Your task to perform on an android device: Open the calendar and show me this week's events? Image 0: 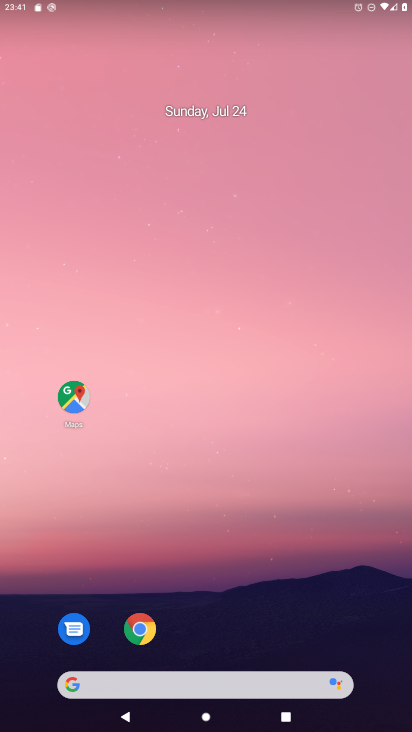
Step 0: drag from (215, 633) to (212, 266)
Your task to perform on an android device: Open the calendar and show me this week's events? Image 1: 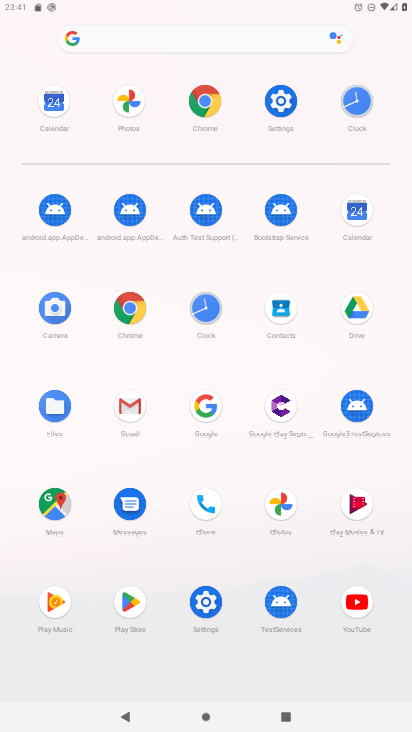
Step 1: drag from (175, 633) to (232, 235)
Your task to perform on an android device: Open the calendar and show me this week's events? Image 2: 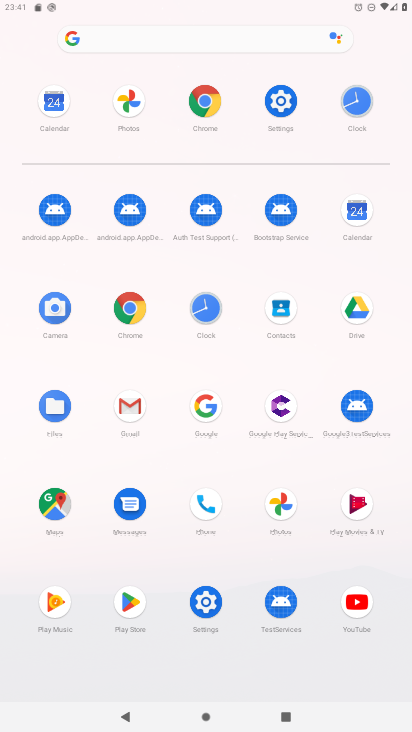
Step 2: click (272, 489)
Your task to perform on an android device: Open the calendar and show me this week's events? Image 3: 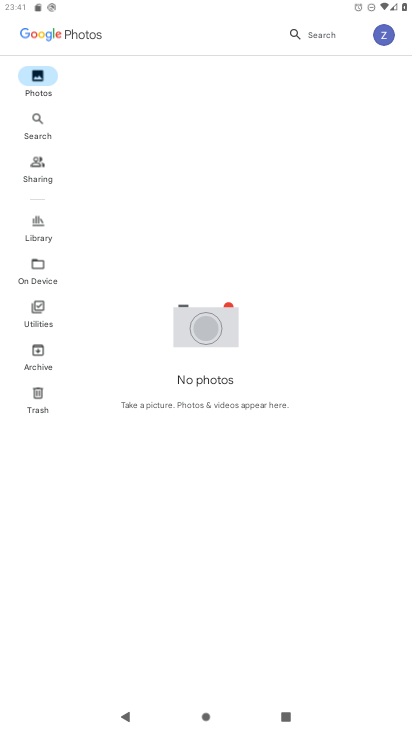
Step 3: click (139, 330)
Your task to perform on an android device: Open the calendar and show me this week's events? Image 4: 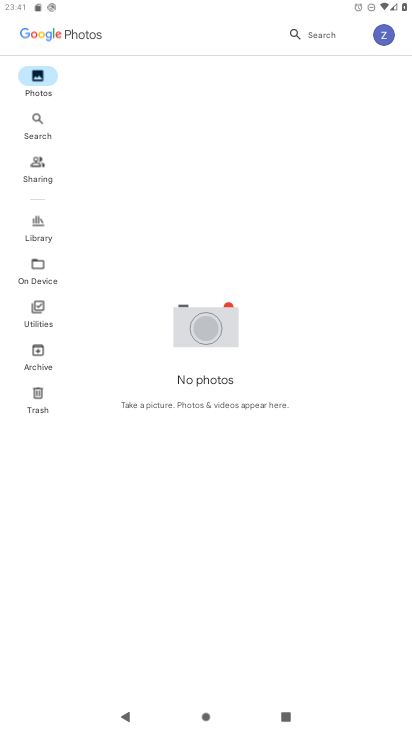
Step 4: drag from (196, 486) to (178, 422)
Your task to perform on an android device: Open the calendar and show me this week's events? Image 5: 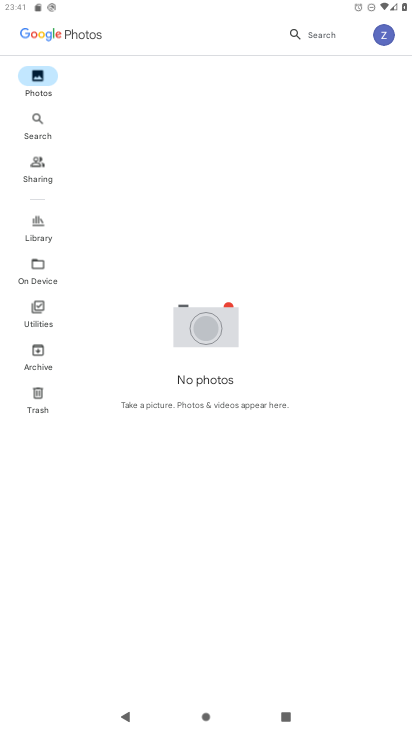
Step 5: drag from (164, 608) to (177, 363)
Your task to perform on an android device: Open the calendar and show me this week's events? Image 6: 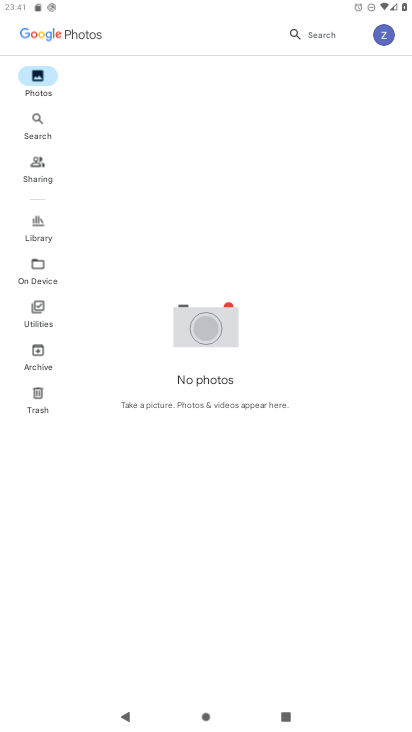
Step 6: drag from (169, 154) to (241, 531)
Your task to perform on an android device: Open the calendar and show me this week's events? Image 7: 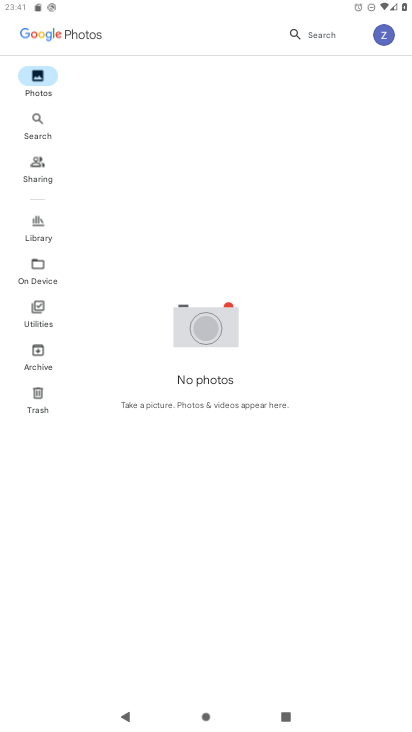
Step 7: drag from (192, 441) to (208, 300)
Your task to perform on an android device: Open the calendar and show me this week's events? Image 8: 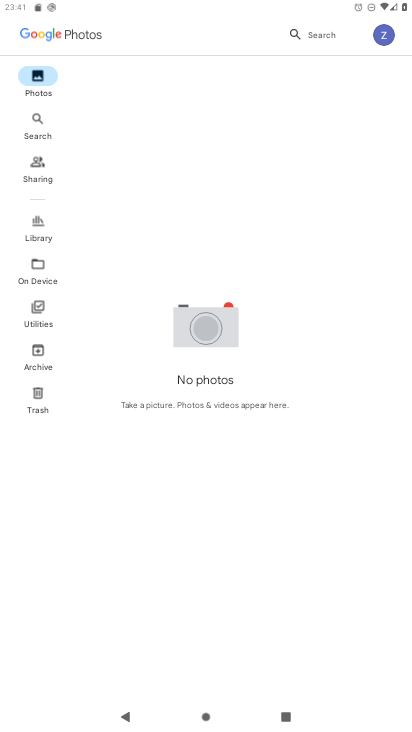
Step 8: drag from (131, 89) to (141, 626)
Your task to perform on an android device: Open the calendar and show me this week's events? Image 9: 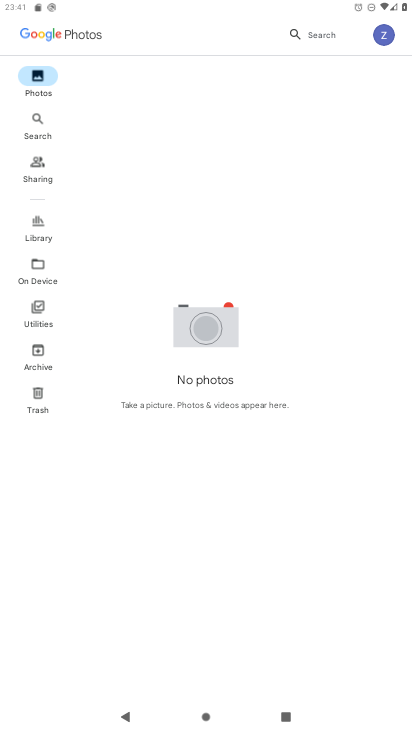
Step 9: drag from (178, 523) to (207, 267)
Your task to perform on an android device: Open the calendar and show me this week's events? Image 10: 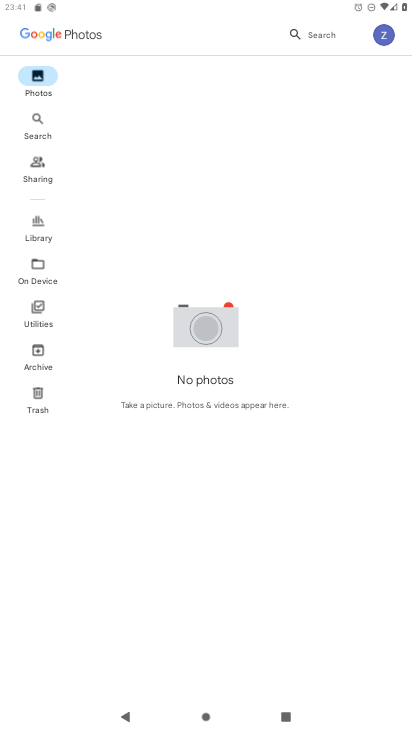
Step 10: press home button
Your task to perform on an android device: Open the calendar and show me this week's events? Image 11: 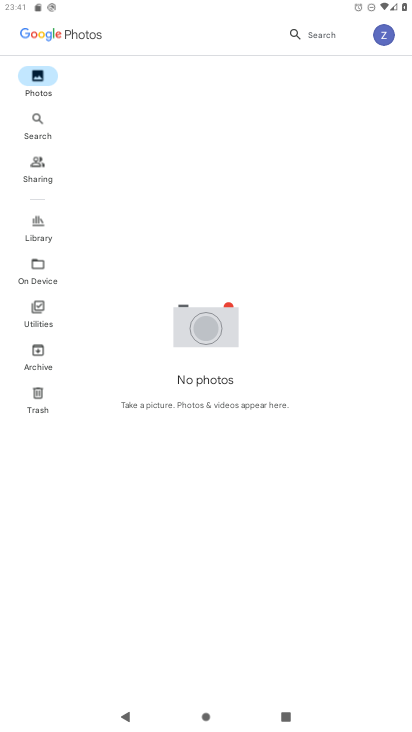
Step 11: press home button
Your task to perform on an android device: Open the calendar and show me this week's events? Image 12: 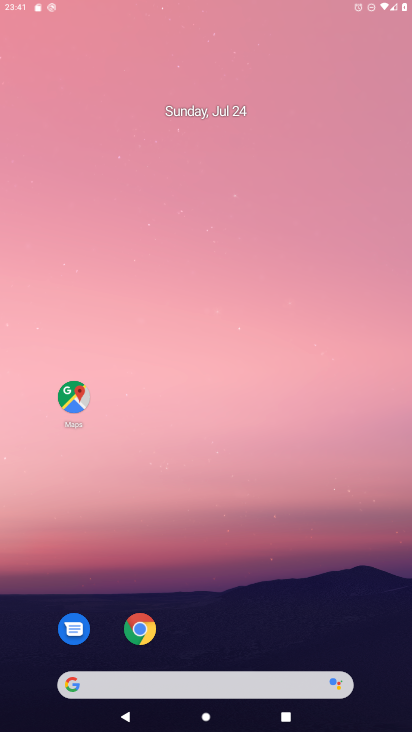
Step 12: press home button
Your task to perform on an android device: Open the calendar and show me this week's events? Image 13: 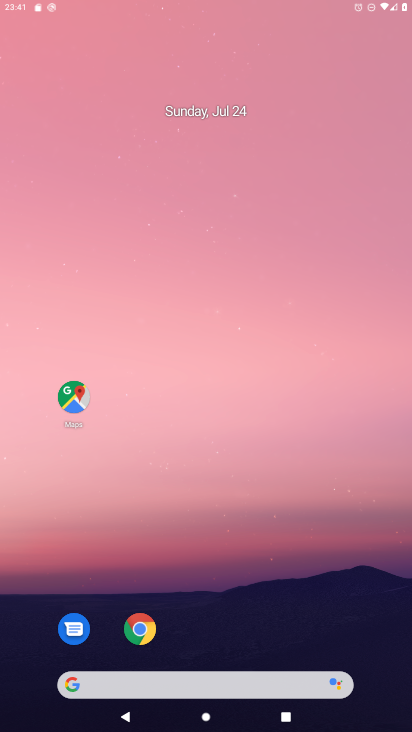
Step 13: click (278, 250)
Your task to perform on an android device: Open the calendar and show me this week's events? Image 14: 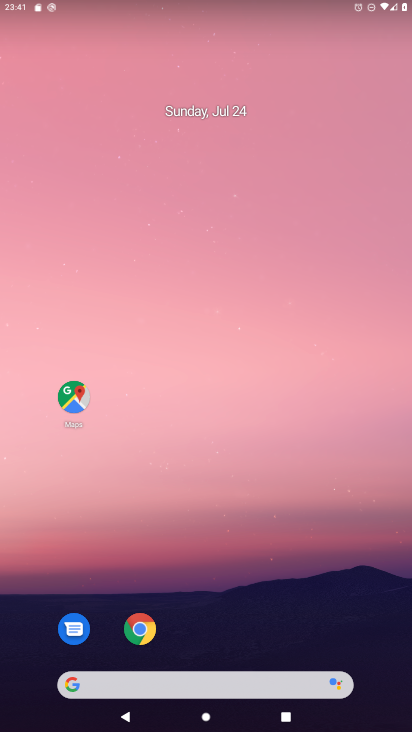
Step 14: drag from (204, 302) to (199, 119)
Your task to perform on an android device: Open the calendar and show me this week's events? Image 15: 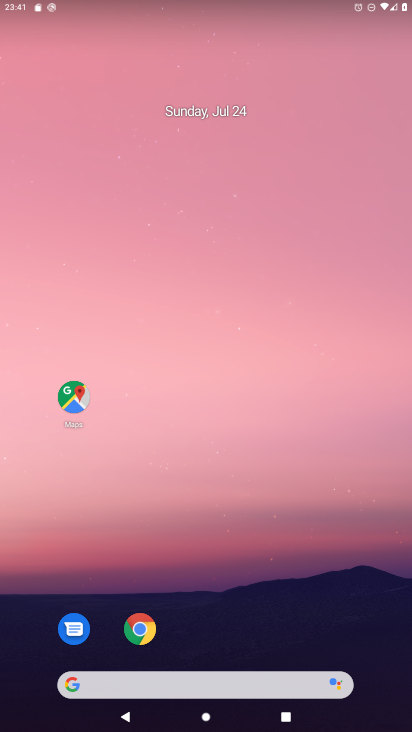
Step 15: drag from (200, 642) to (220, 244)
Your task to perform on an android device: Open the calendar and show me this week's events? Image 16: 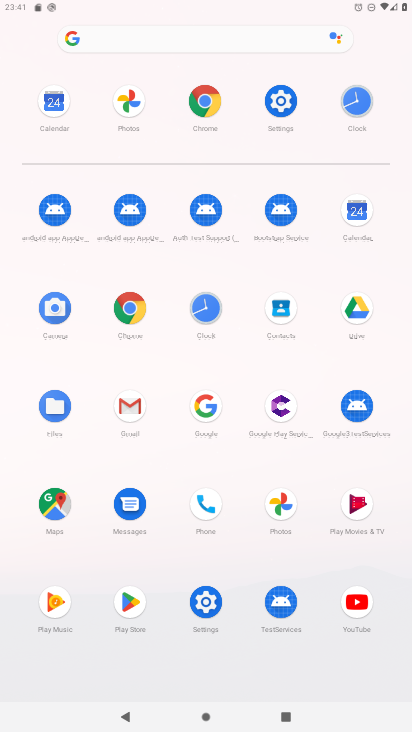
Step 16: drag from (240, 395) to (247, 150)
Your task to perform on an android device: Open the calendar and show me this week's events? Image 17: 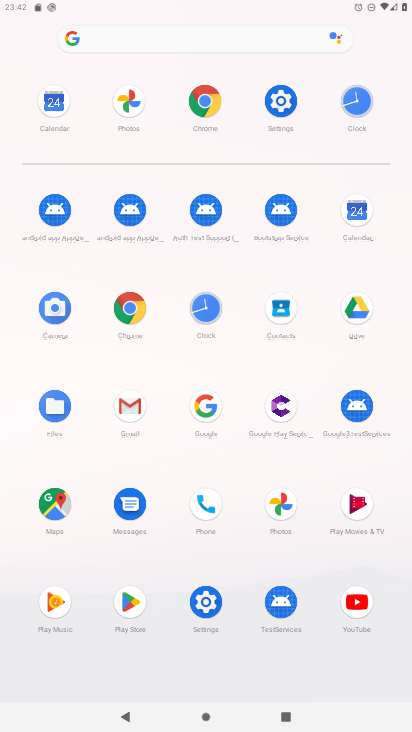
Step 17: click (359, 214)
Your task to perform on an android device: Open the calendar and show me this week's events? Image 18: 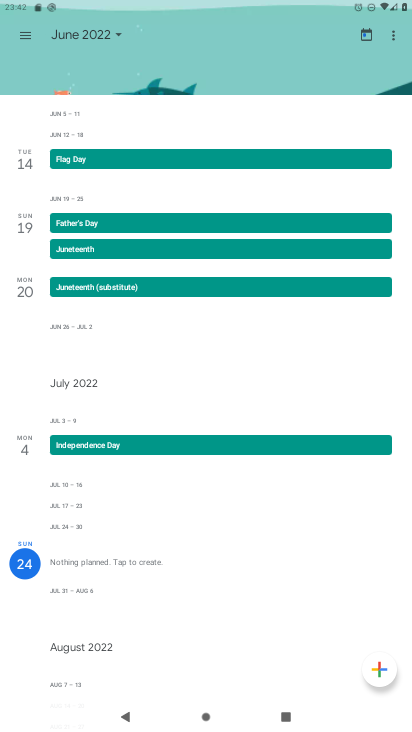
Step 18: click (101, 37)
Your task to perform on an android device: Open the calendar and show me this week's events? Image 19: 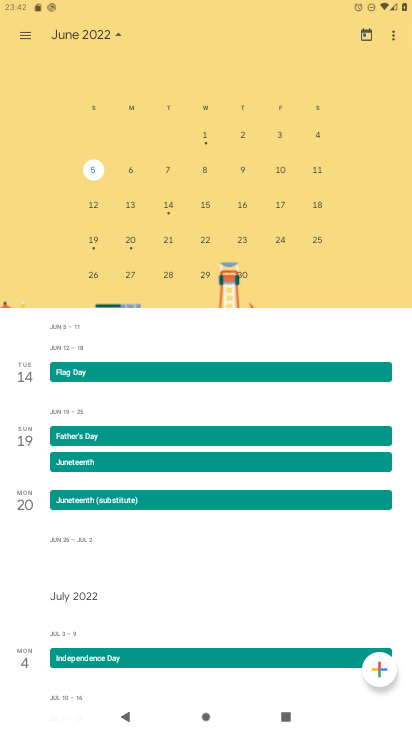
Step 19: click (96, 35)
Your task to perform on an android device: Open the calendar and show me this week's events? Image 20: 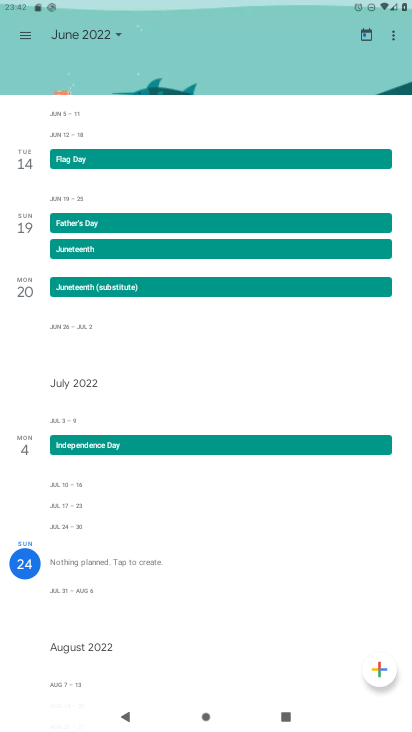
Step 20: click (98, 28)
Your task to perform on an android device: Open the calendar and show me this week's events? Image 21: 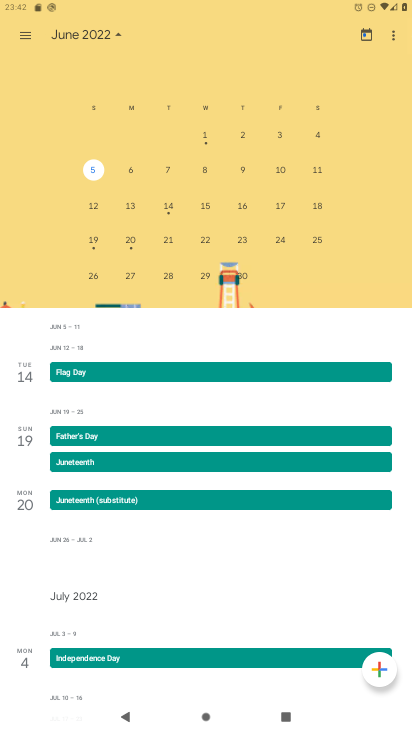
Step 21: click (366, 27)
Your task to perform on an android device: Open the calendar and show me this week's events? Image 22: 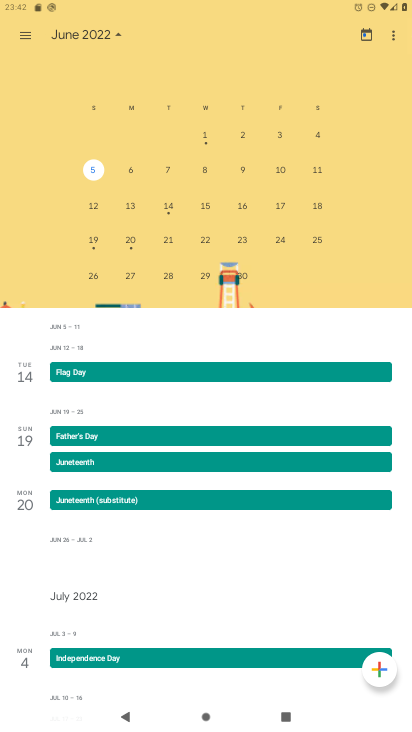
Step 22: drag from (298, 228) to (2, 197)
Your task to perform on an android device: Open the calendar and show me this week's events? Image 23: 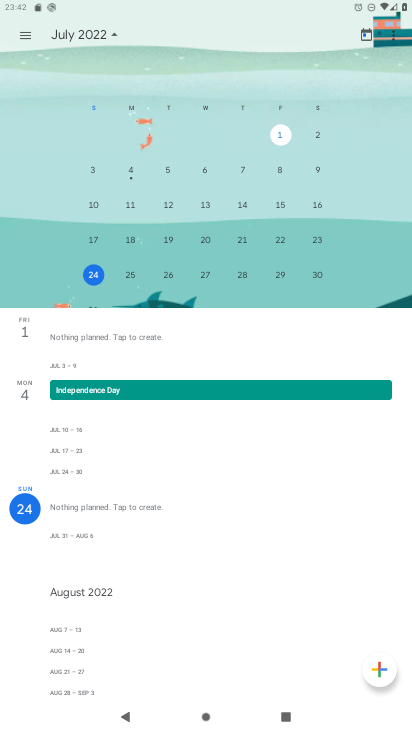
Step 23: click (359, 36)
Your task to perform on an android device: Open the calendar and show me this week's events? Image 24: 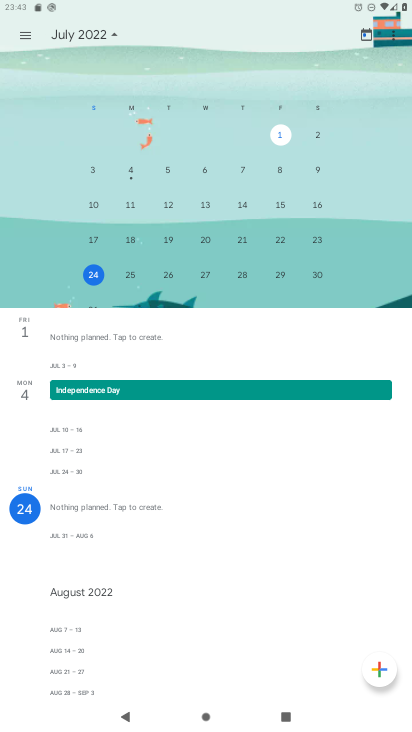
Step 24: click (316, 278)
Your task to perform on an android device: Open the calendar and show me this week's events? Image 25: 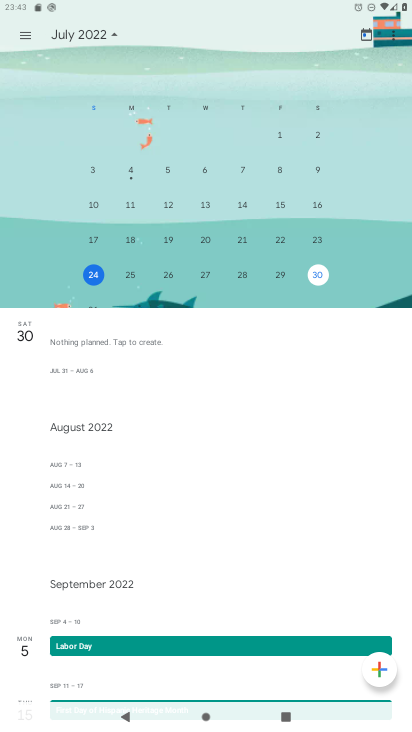
Step 25: task complete